Your task to perform on an android device: star an email in the gmail app Image 0: 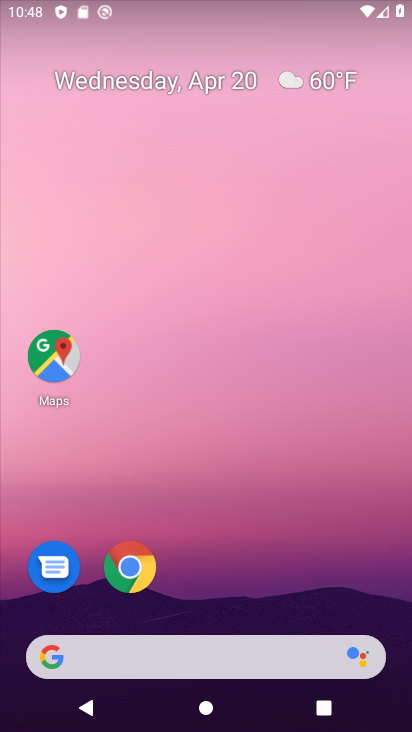
Step 0: drag from (315, 612) to (247, 134)
Your task to perform on an android device: star an email in the gmail app Image 1: 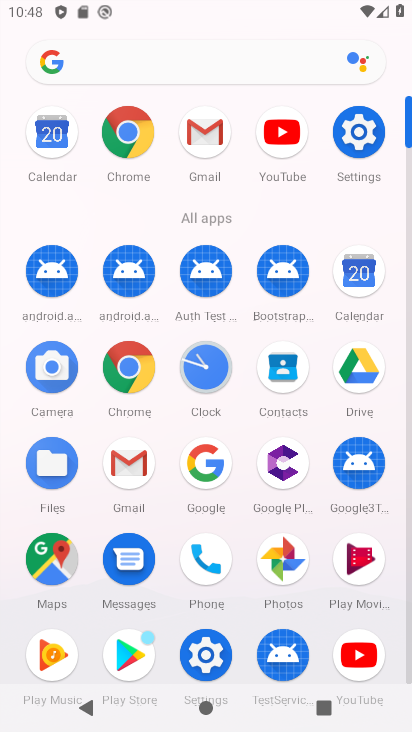
Step 1: click (139, 481)
Your task to perform on an android device: star an email in the gmail app Image 2: 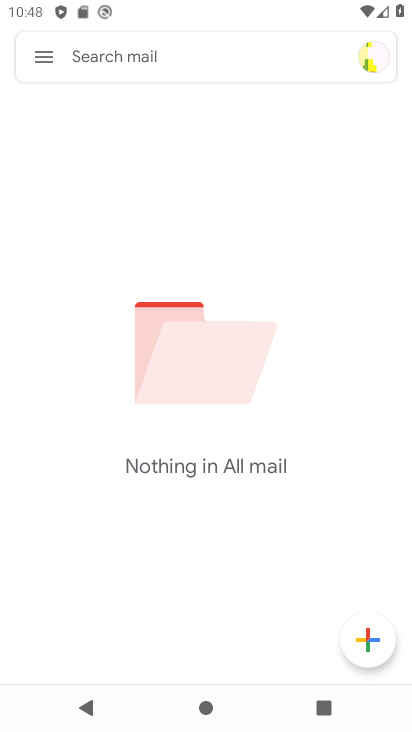
Step 2: task complete